Your task to perform on an android device: open wifi settings Image 0: 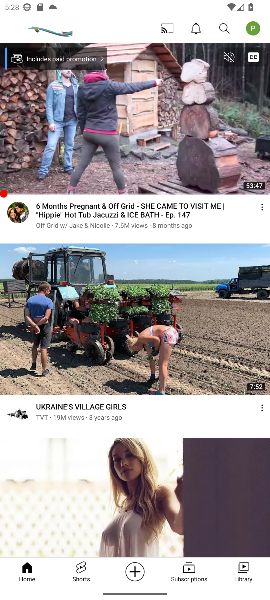
Step 0: press home button
Your task to perform on an android device: open wifi settings Image 1: 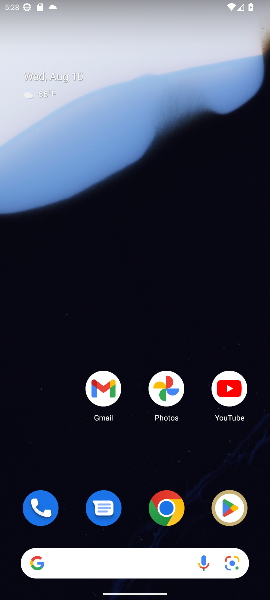
Step 1: drag from (51, 442) to (105, 2)
Your task to perform on an android device: open wifi settings Image 2: 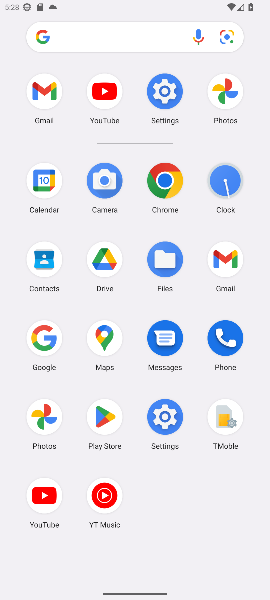
Step 2: click (164, 84)
Your task to perform on an android device: open wifi settings Image 3: 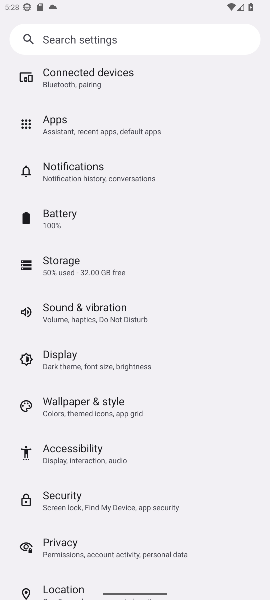
Step 3: drag from (115, 104) to (131, 414)
Your task to perform on an android device: open wifi settings Image 4: 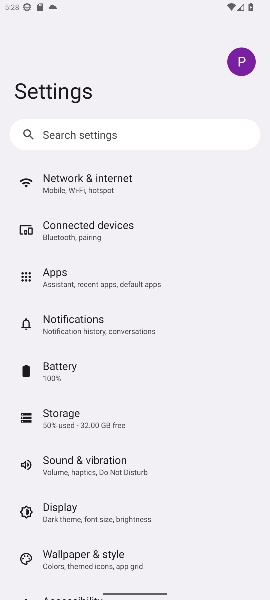
Step 4: click (85, 184)
Your task to perform on an android device: open wifi settings Image 5: 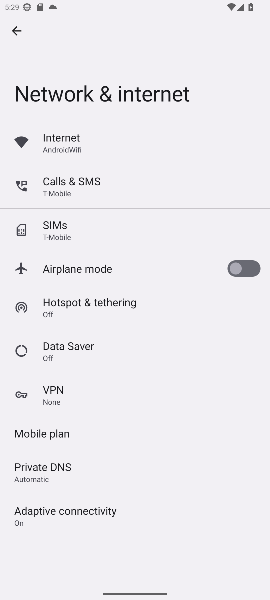
Step 5: click (87, 141)
Your task to perform on an android device: open wifi settings Image 6: 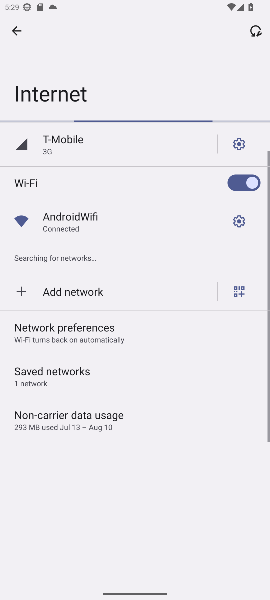
Step 6: click (235, 223)
Your task to perform on an android device: open wifi settings Image 7: 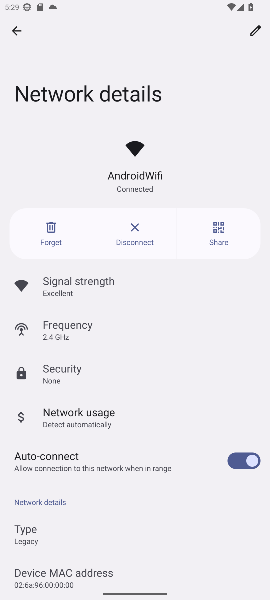
Step 7: task complete